Your task to perform on an android device: add a contact Image 0: 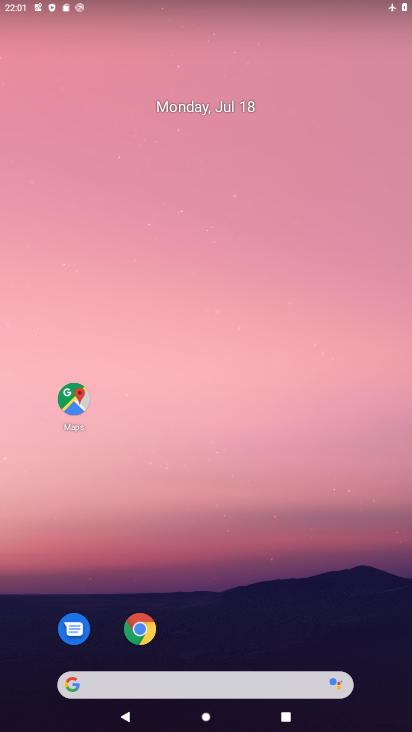
Step 0: drag from (326, 595) to (367, 133)
Your task to perform on an android device: add a contact Image 1: 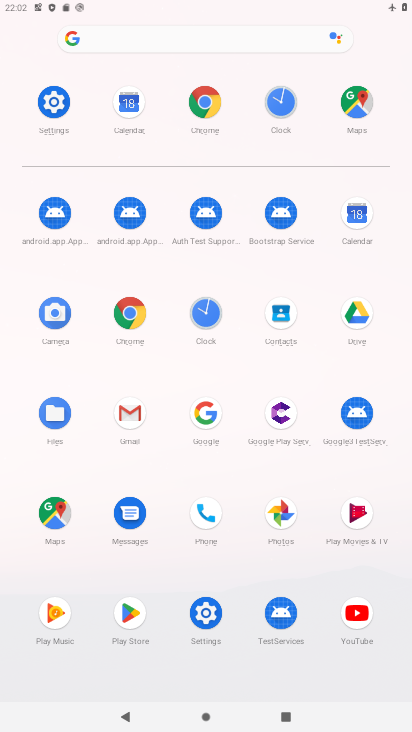
Step 1: click (283, 319)
Your task to perform on an android device: add a contact Image 2: 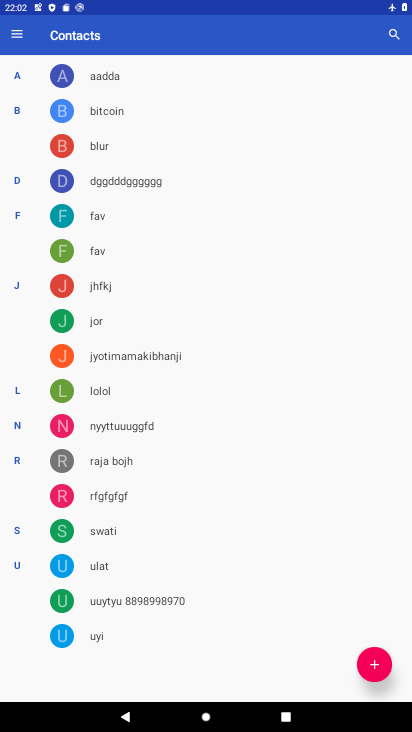
Step 2: click (368, 661)
Your task to perform on an android device: add a contact Image 3: 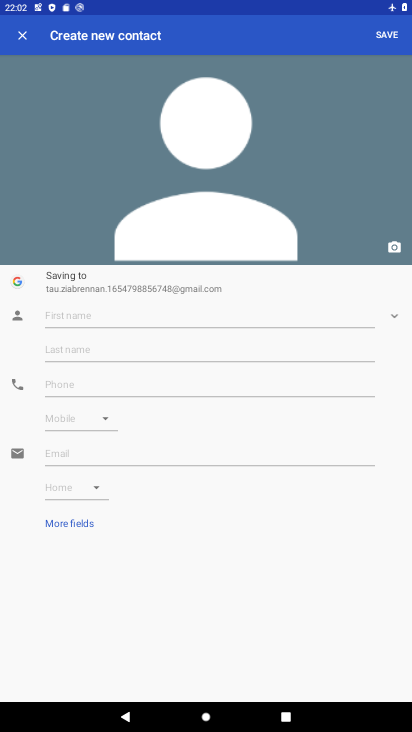
Step 3: click (129, 323)
Your task to perform on an android device: add a contact Image 4: 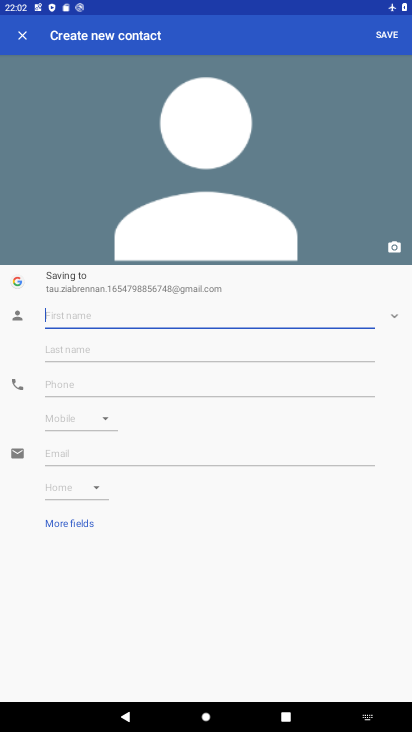
Step 4: type "gangu teli"
Your task to perform on an android device: add a contact Image 5: 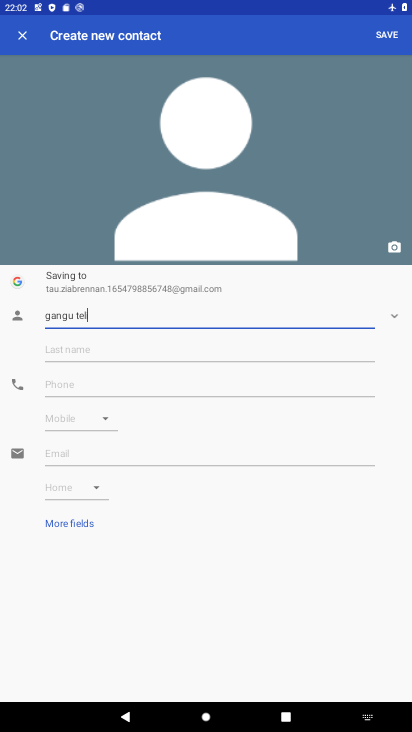
Step 5: click (392, 33)
Your task to perform on an android device: add a contact Image 6: 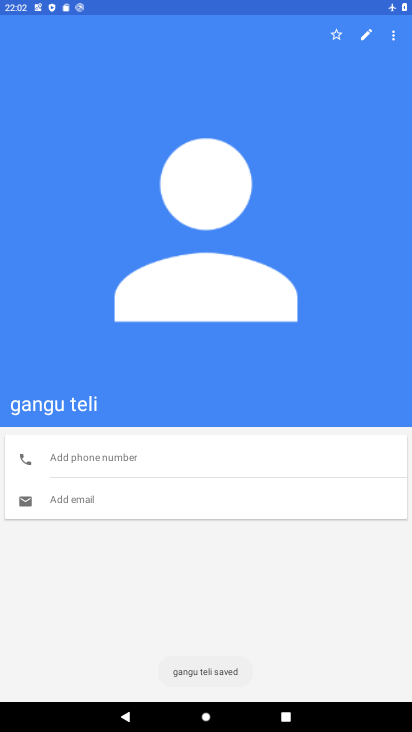
Step 6: task complete